Your task to perform on an android device: toggle show notifications on the lock screen Image 0: 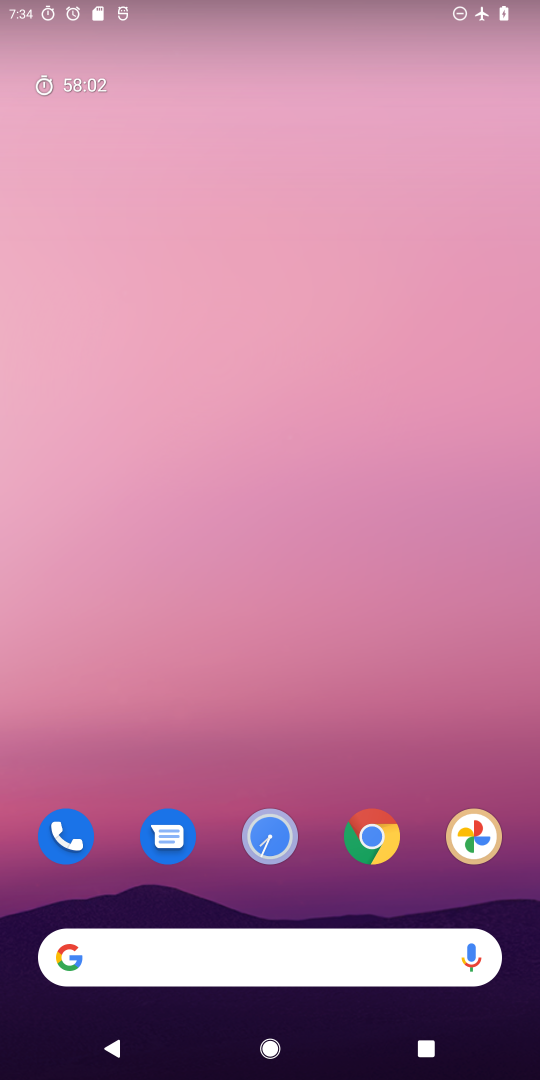
Step 0: click (339, 48)
Your task to perform on an android device: toggle show notifications on the lock screen Image 1: 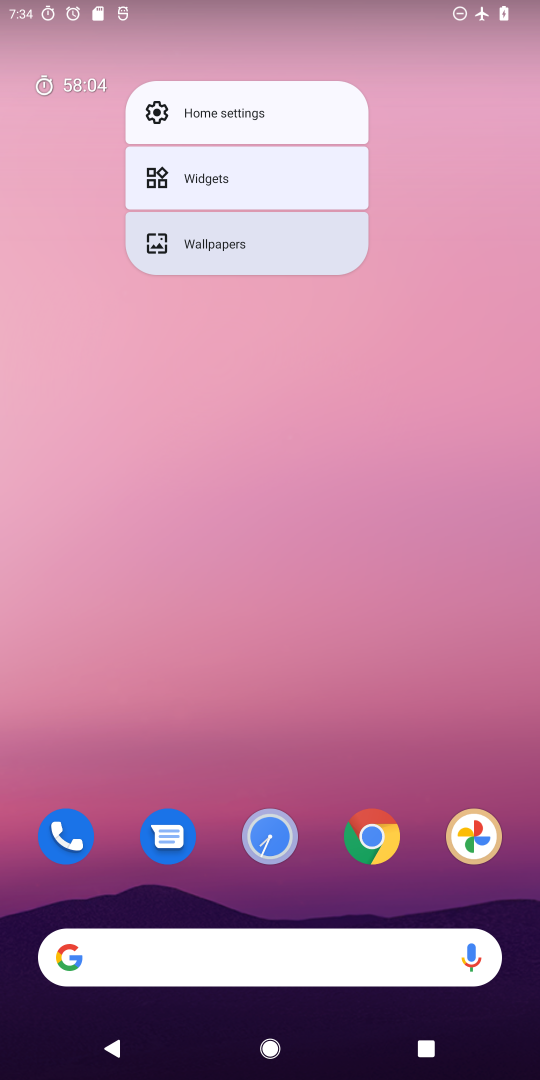
Step 1: drag from (299, 719) to (438, 5)
Your task to perform on an android device: toggle show notifications on the lock screen Image 2: 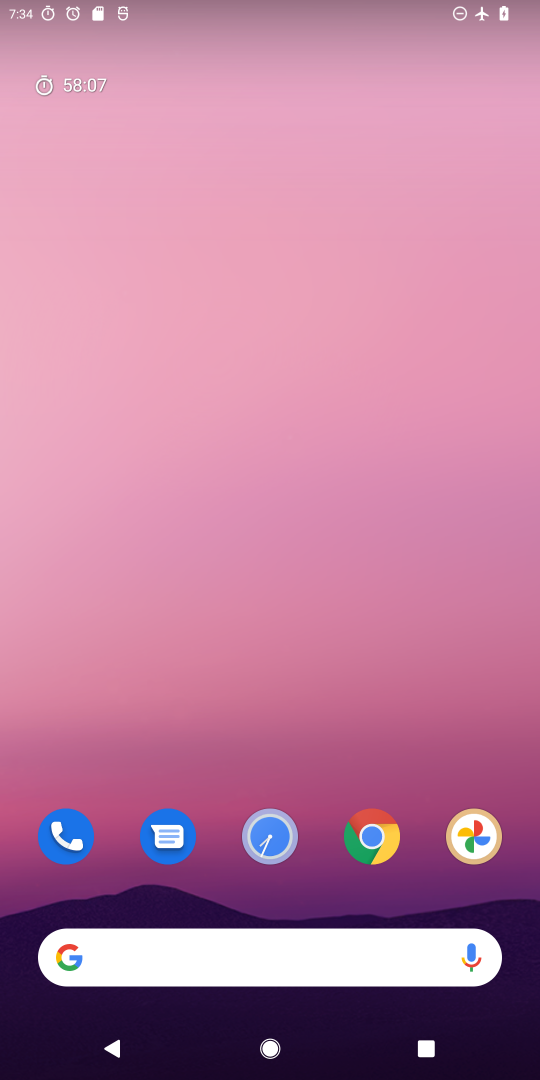
Step 2: drag from (337, 721) to (416, 3)
Your task to perform on an android device: toggle show notifications on the lock screen Image 3: 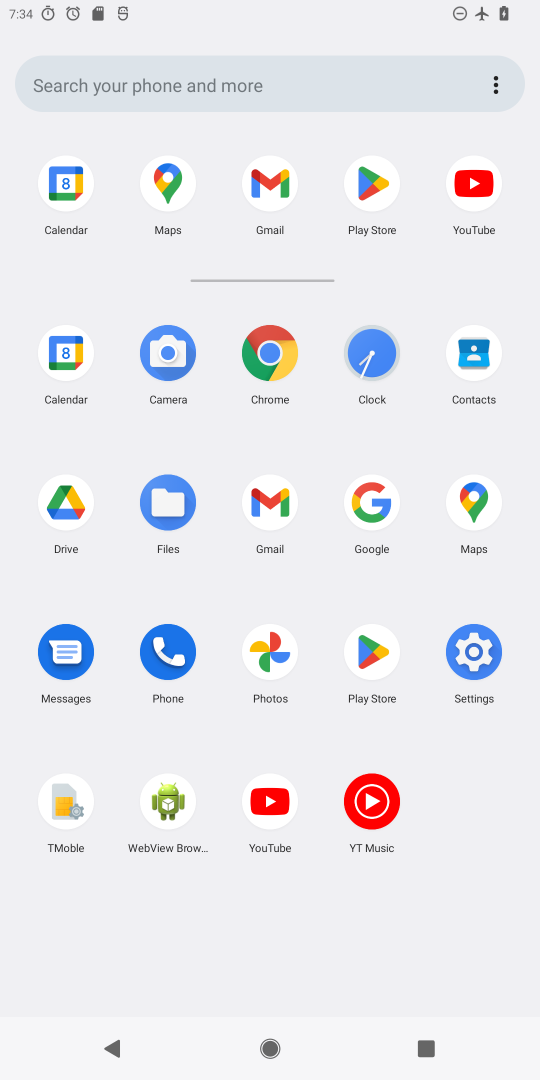
Step 3: click (481, 678)
Your task to perform on an android device: toggle show notifications on the lock screen Image 4: 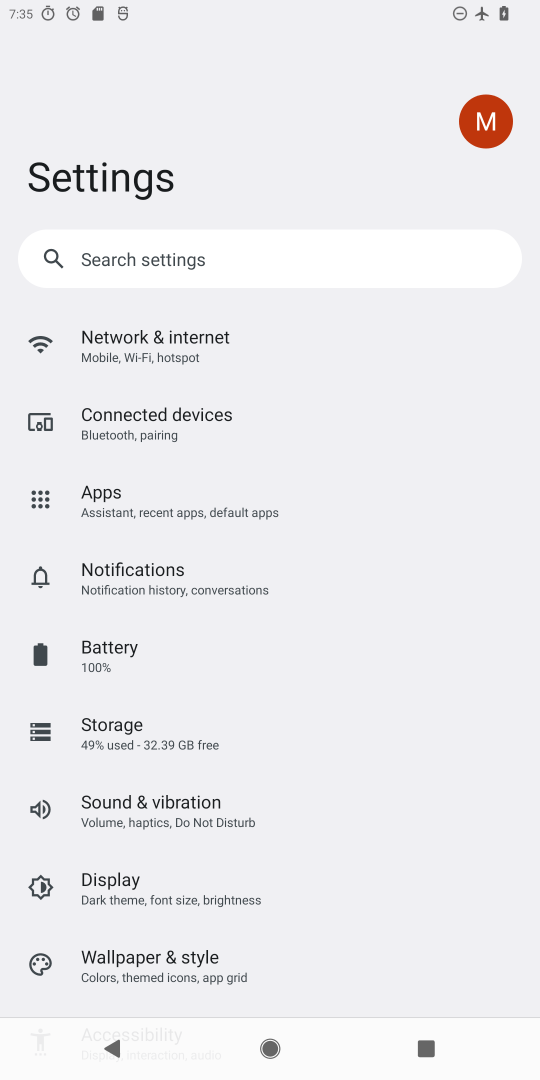
Step 4: drag from (226, 900) to (323, 455)
Your task to perform on an android device: toggle show notifications on the lock screen Image 5: 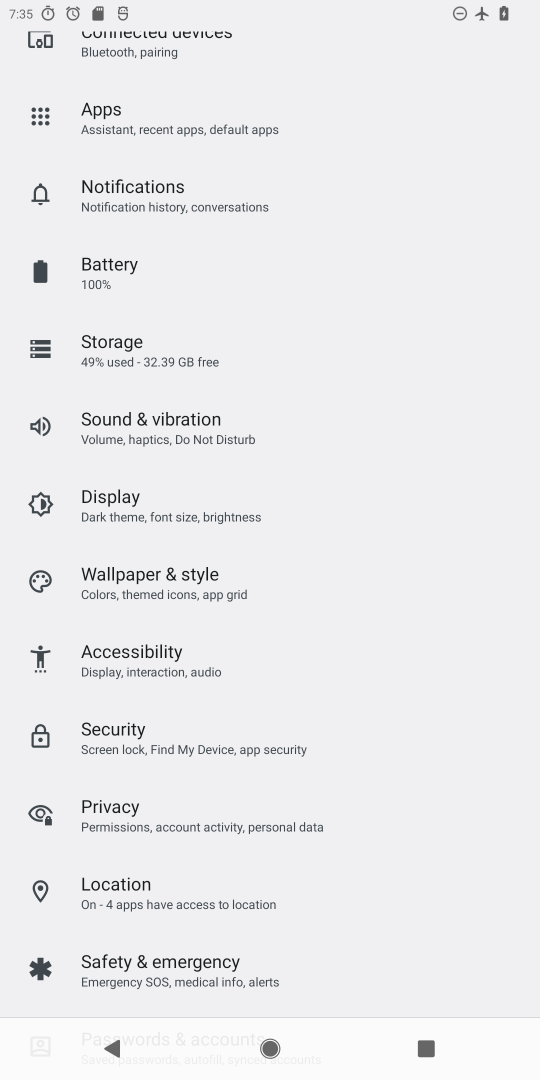
Step 5: drag from (267, 169) to (223, 309)
Your task to perform on an android device: toggle show notifications on the lock screen Image 6: 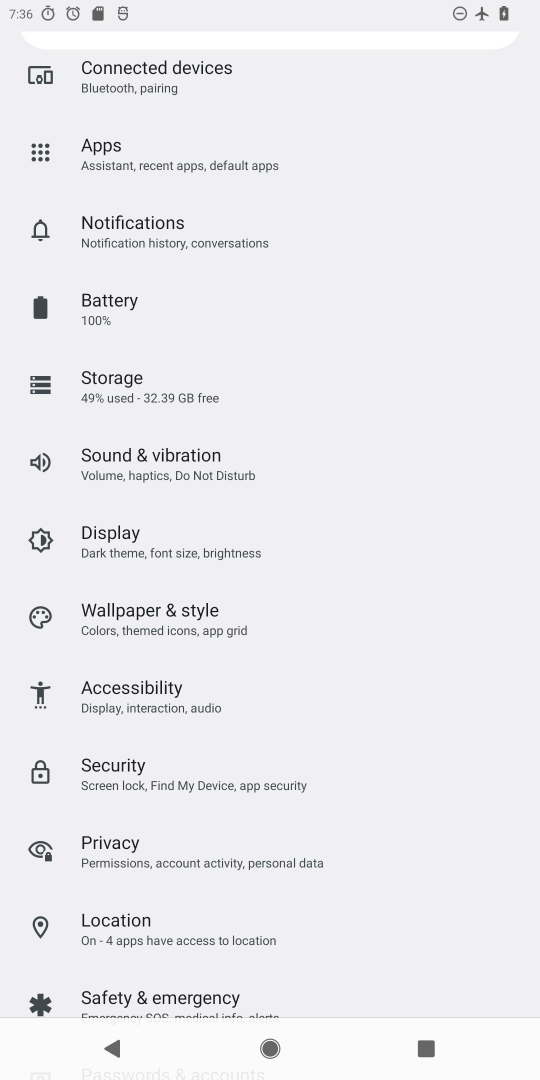
Step 6: click (236, 243)
Your task to perform on an android device: toggle show notifications on the lock screen Image 7: 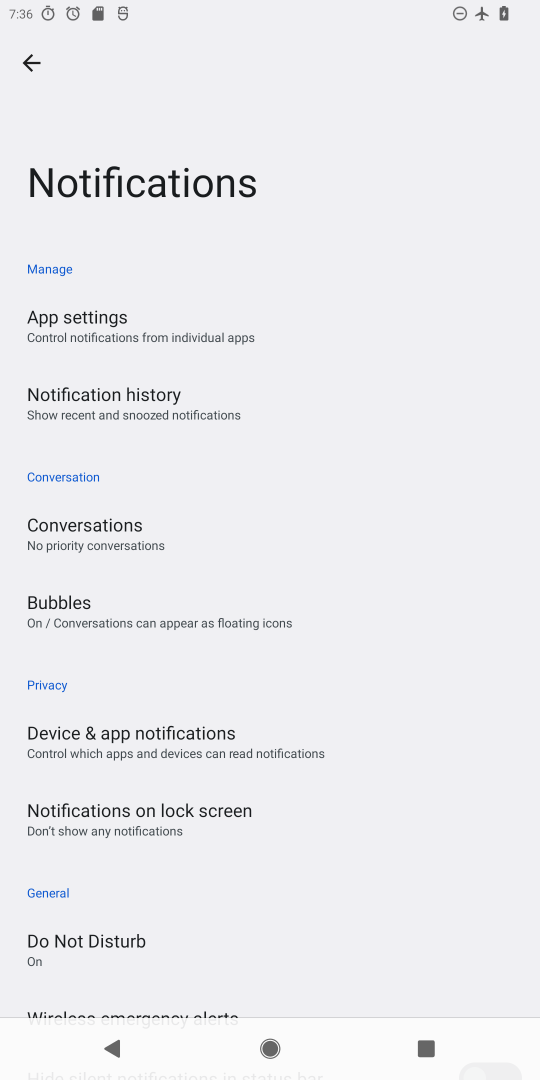
Step 7: click (234, 800)
Your task to perform on an android device: toggle show notifications on the lock screen Image 8: 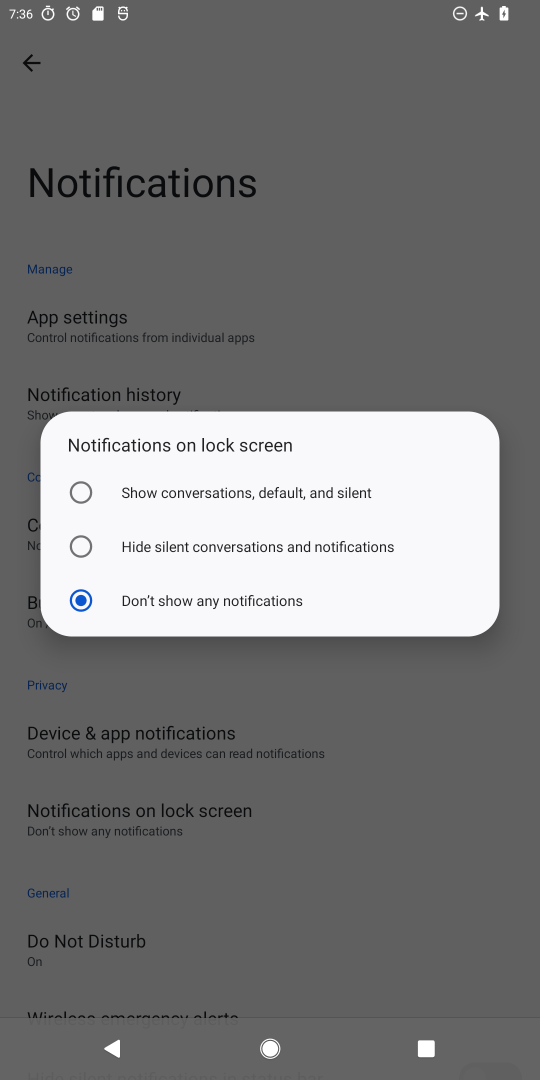
Step 8: click (180, 486)
Your task to perform on an android device: toggle show notifications on the lock screen Image 9: 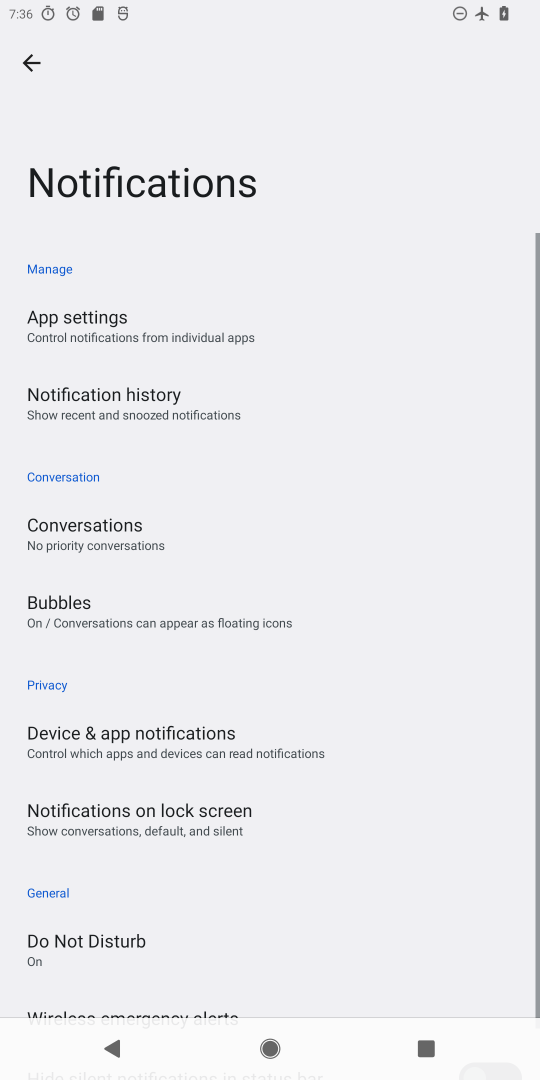
Step 9: task complete